Your task to perform on an android device: snooze an email in the gmail app Image 0: 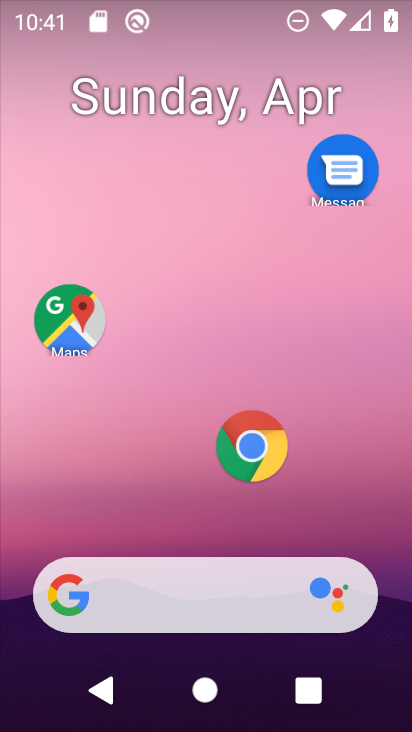
Step 0: drag from (212, 506) to (206, 132)
Your task to perform on an android device: snooze an email in the gmail app Image 1: 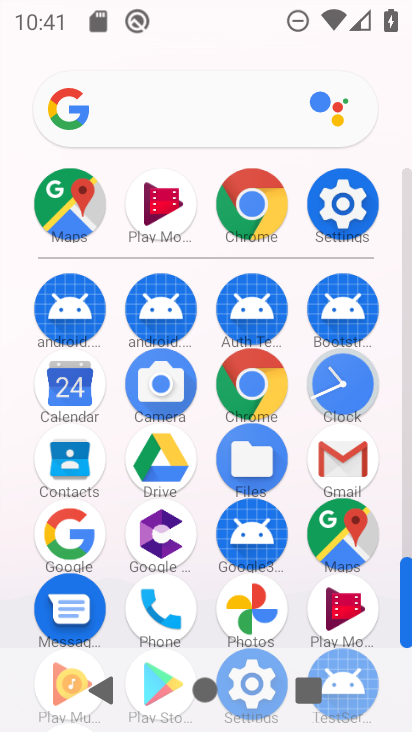
Step 1: click (339, 445)
Your task to perform on an android device: snooze an email in the gmail app Image 2: 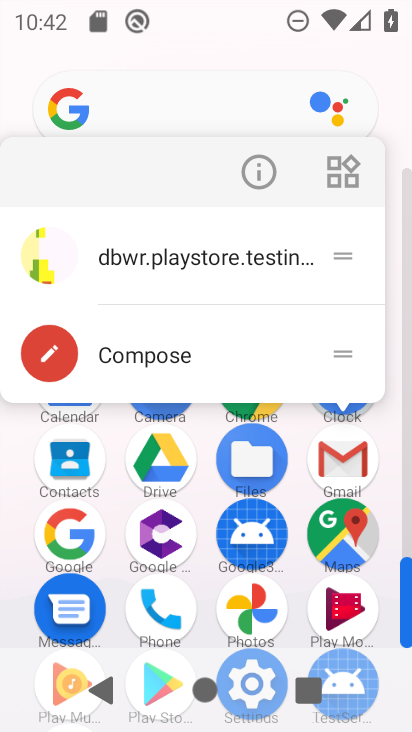
Step 2: click (270, 173)
Your task to perform on an android device: snooze an email in the gmail app Image 3: 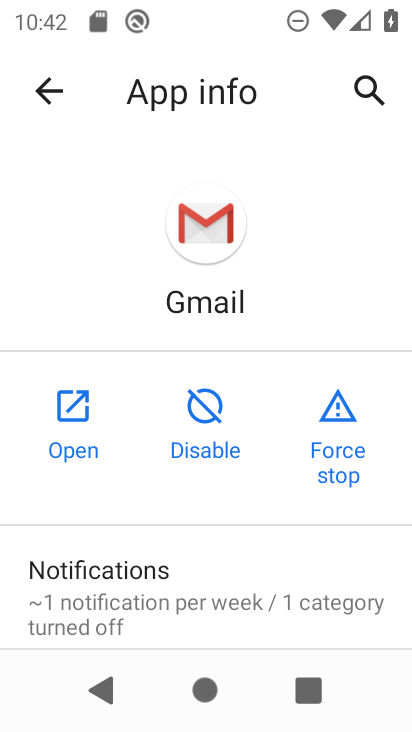
Step 3: click (66, 400)
Your task to perform on an android device: snooze an email in the gmail app Image 4: 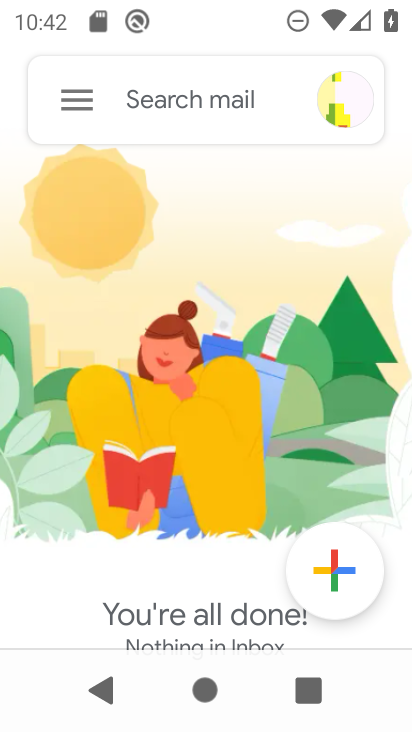
Step 4: click (79, 115)
Your task to perform on an android device: snooze an email in the gmail app Image 5: 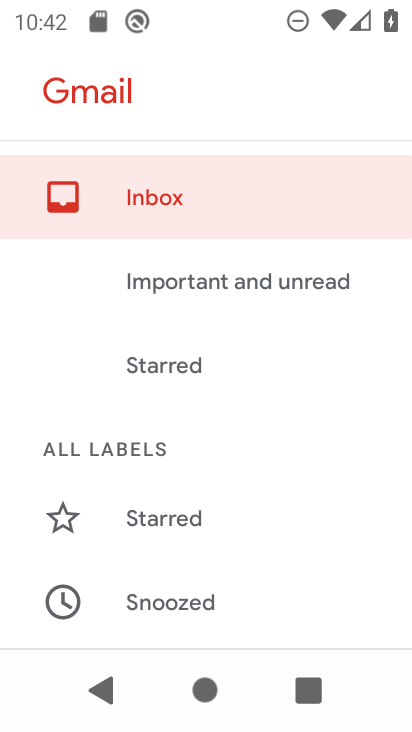
Step 5: task complete